Your task to perform on an android device: turn on data saver in the chrome app Image 0: 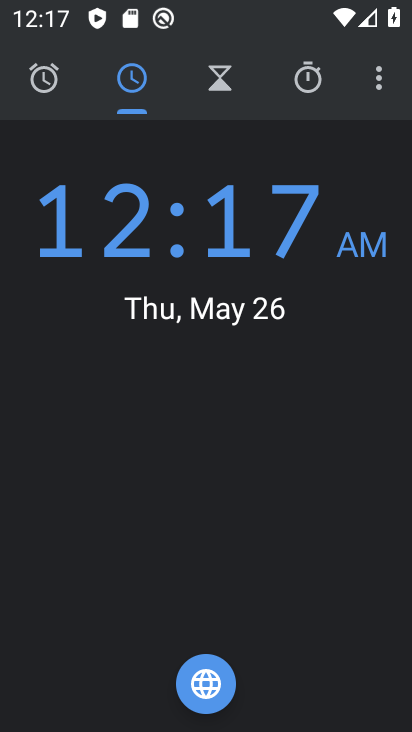
Step 0: press home button
Your task to perform on an android device: turn on data saver in the chrome app Image 1: 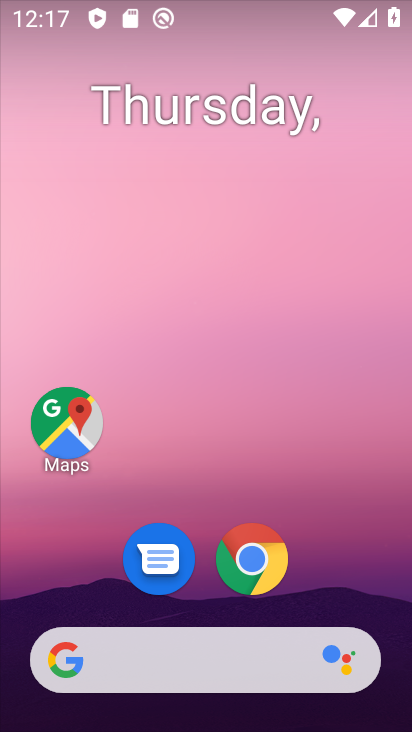
Step 1: click (251, 569)
Your task to perform on an android device: turn on data saver in the chrome app Image 2: 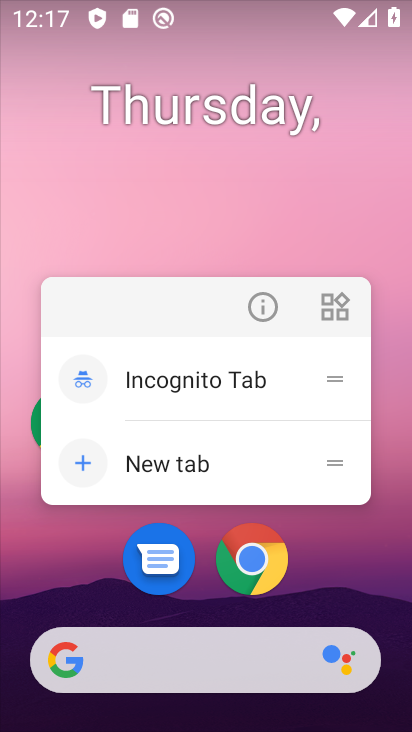
Step 2: click (251, 569)
Your task to perform on an android device: turn on data saver in the chrome app Image 3: 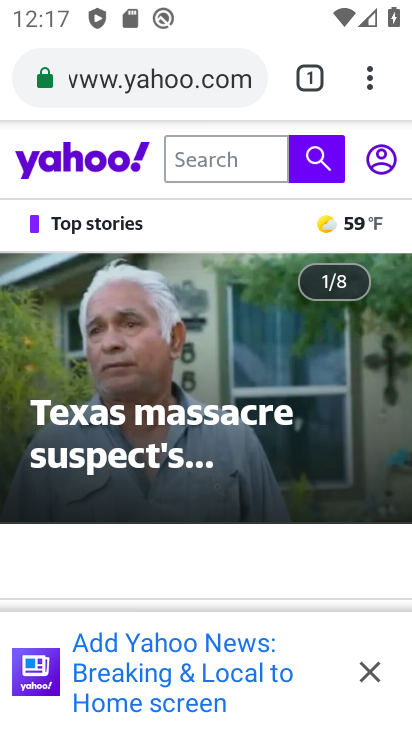
Step 3: click (376, 84)
Your task to perform on an android device: turn on data saver in the chrome app Image 4: 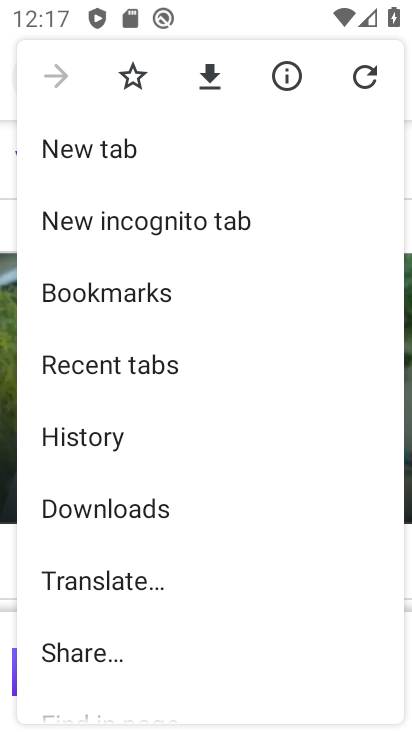
Step 4: drag from (168, 652) to (171, 386)
Your task to perform on an android device: turn on data saver in the chrome app Image 5: 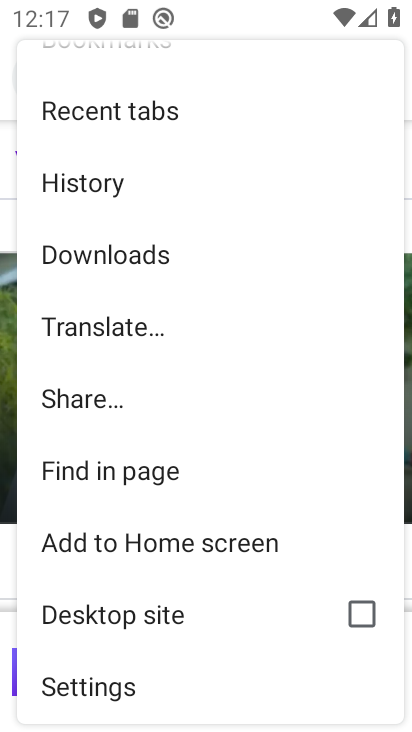
Step 5: click (146, 676)
Your task to perform on an android device: turn on data saver in the chrome app Image 6: 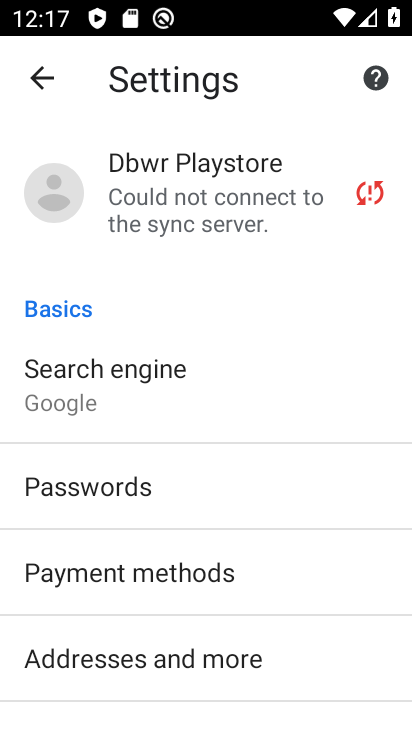
Step 6: drag from (178, 666) to (210, 290)
Your task to perform on an android device: turn on data saver in the chrome app Image 7: 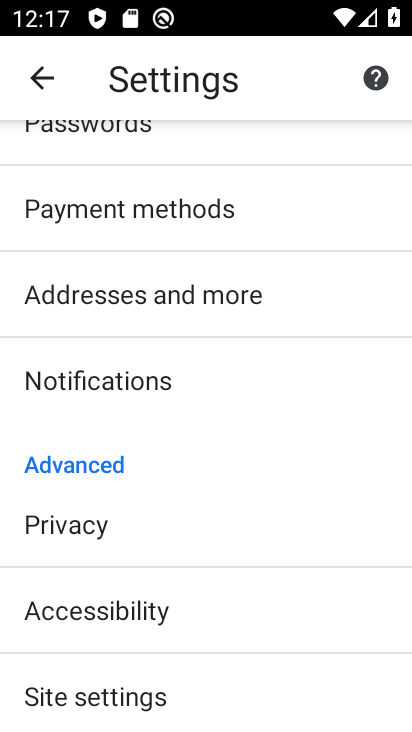
Step 7: drag from (233, 650) to (224, 400)
Your task to perform on an android device: turn on data saver in the chrome app Image 8: 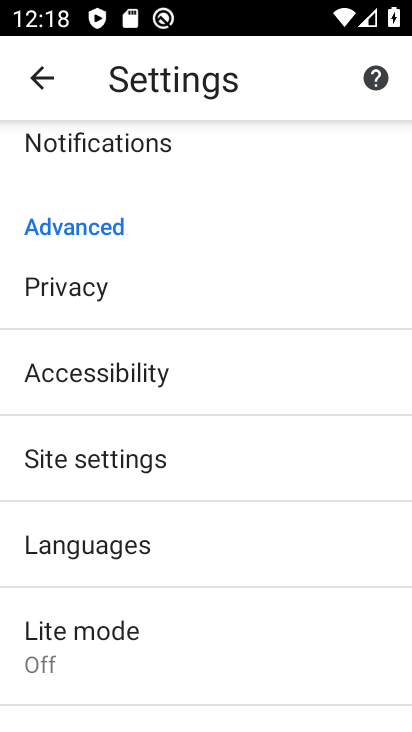
Step 8: click (220, 660)
Your task to perform on an android device: turn on data saver in the chrome app Image 9: 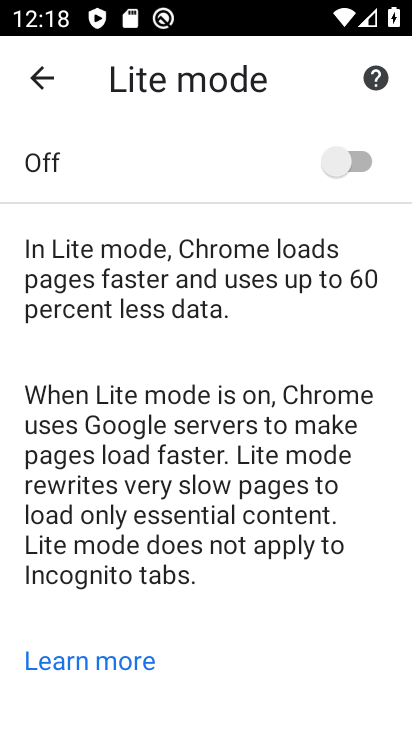
Step 9: click (354, 141)
Your task to perform on an android device: turn on data saver in the chrome app Image 10: 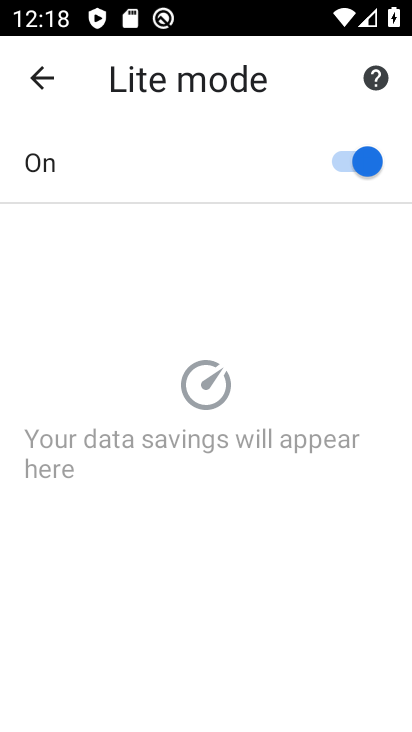
Step 10: task complete